Your task to perform on an android device: When is my next appointment? Image 0: 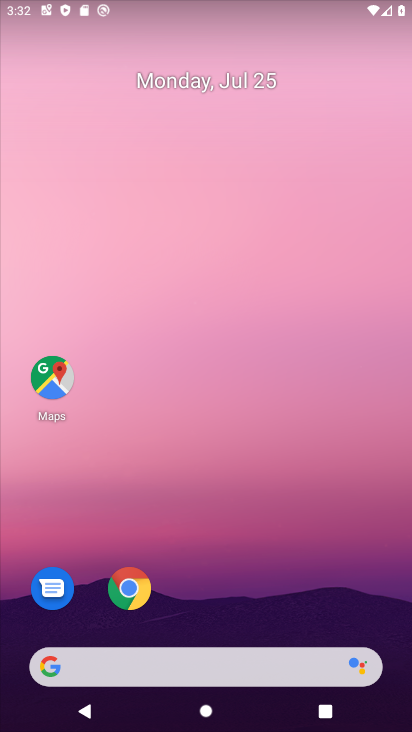
Step 0: drag from (246, 624) to (250, 241)
Your task to perform on an android device: When is my next appointment? Image 1: 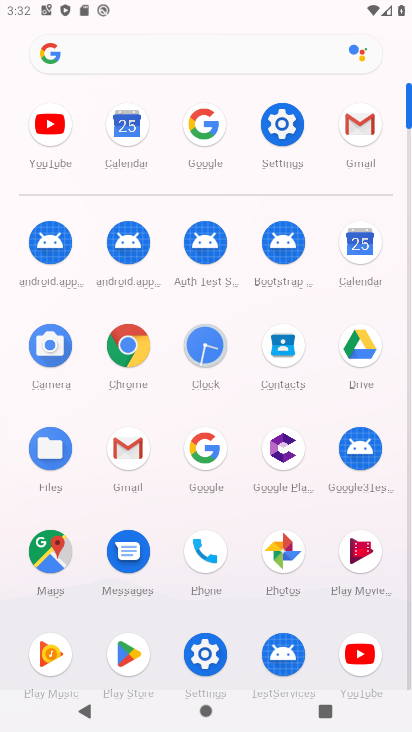
Step 1: click (357, 258)
Your task to perform on an android device: When is my next appointment? Image 2: 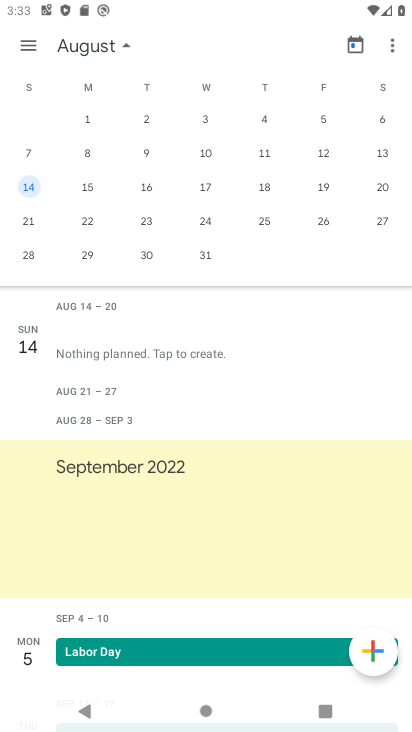
Step 2: drag from (100, 166) to (352, 156)
Your task to perform on an android device: When is my next appointment? Image 3: 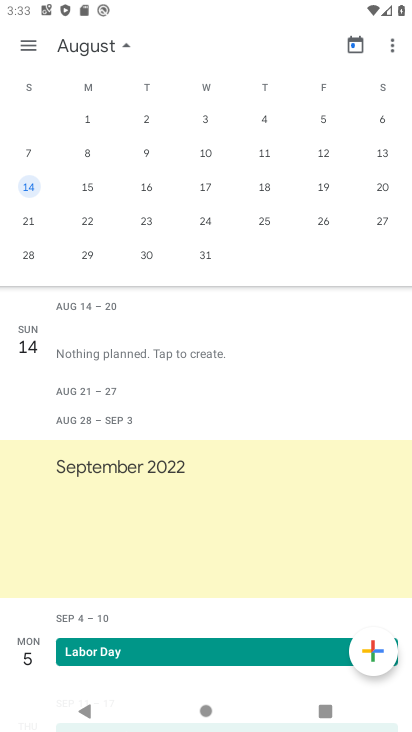
Step 3: drag from (58, 202) to (409, 232)
Your task to perform on an android device: When is my next appointment? Image 4: 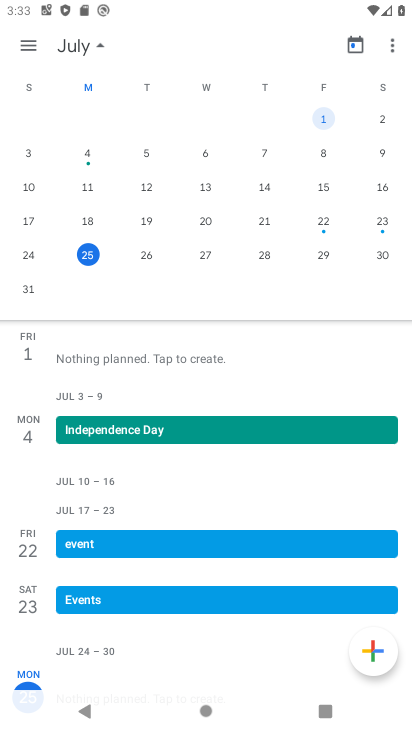
Step 4: drag from (50, 210) to (373, 239)
Your task to perform on an android device: When is my next appointment? Image 5: 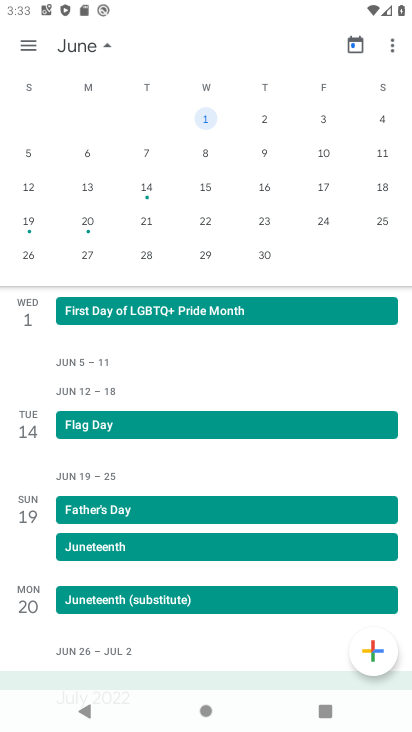
Step 5: drag from (366, 242) to (112, 185)
Your task to perform on an android device: When is my next appointment? Image 6: 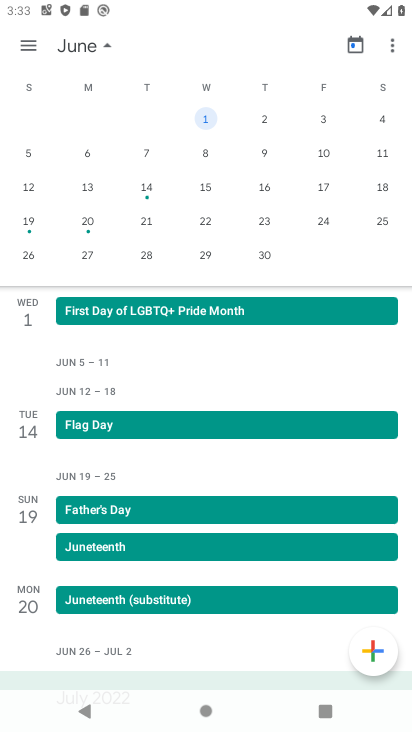
Step 6: drag from (216, 213) to (3, 178)
Your task to perform on an android device: When is my next appointment? Image 7: 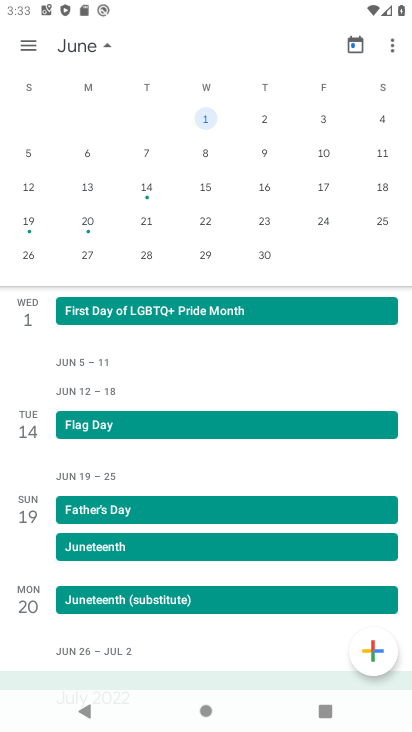
Step 7: drag from (337, 200) to (5, 168)
Your task to perform on an android device: When is my next appointment? Image 8: 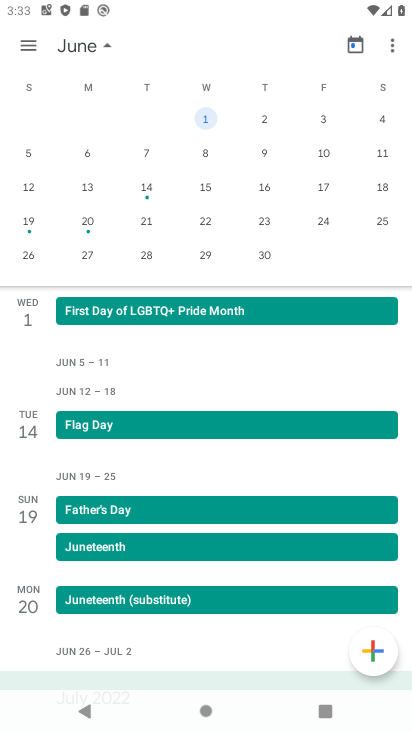
Step 8: drag from (307, 196) to (5, 197)
Your task to perform on an android device: When is my next appointment? Image 9: 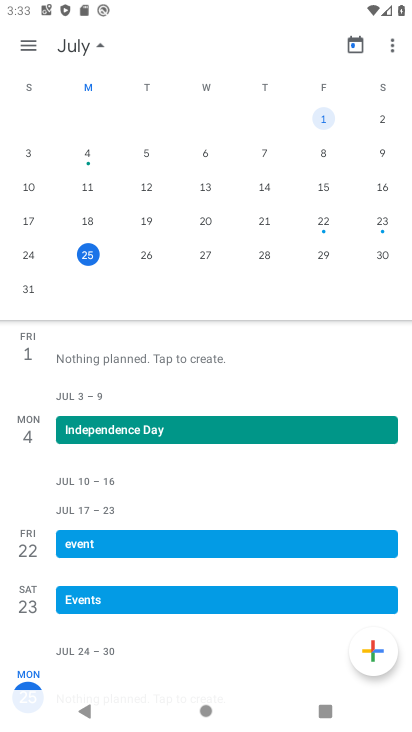
Step 9: click (152, 251)
Your task to perform on an android device: When is my next appointment? Image 10: 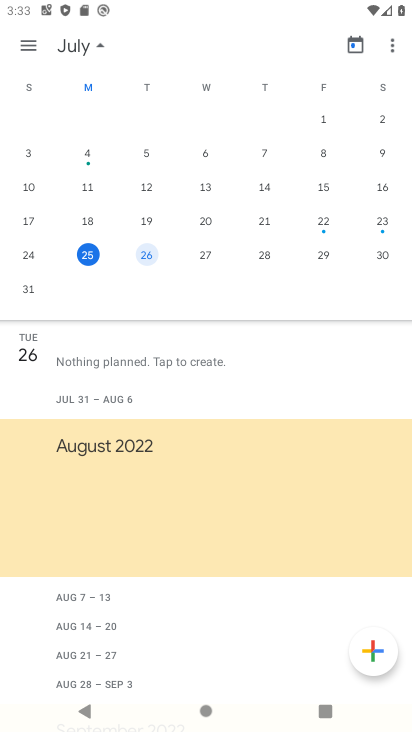
Step 10: click (243, 251)
Your task to perform on an android device: When is my next appointment? Image 11: 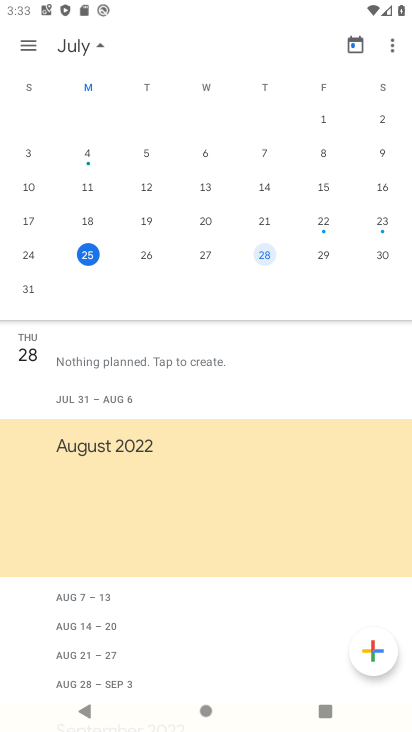
Step 11: task complete